Your task to perform on an android device: Go to notification settings Image 0: 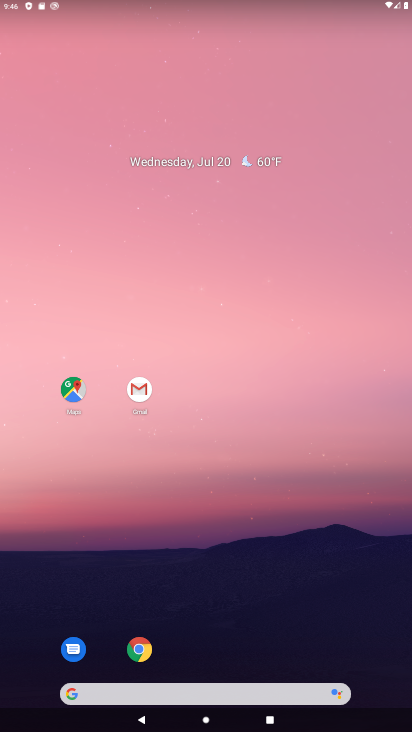
Step 0: drag from (324, 492) to (294, 127)
Your task to perform on an android device: Go to notification settings Image 1: 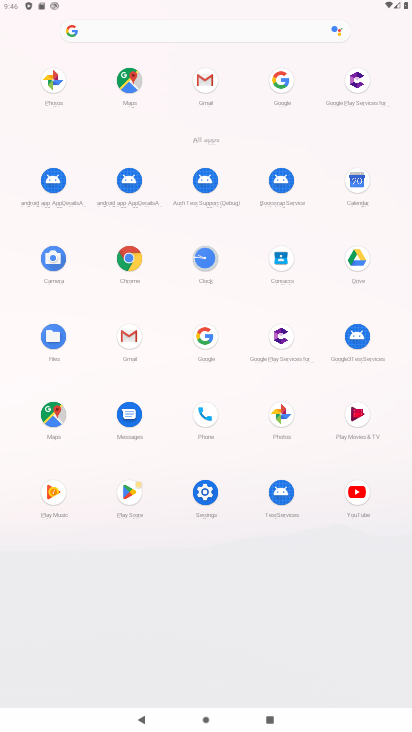
Step 1: click (201, 494)
Your task to perform on an android device: Go to notification settings Image 2: 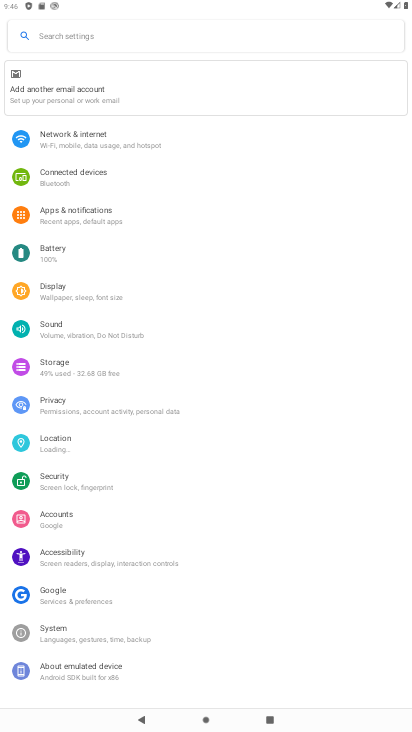
Step 2: click (77, 212)
Your task to perform on an android device: Go to notification settings Image 3: 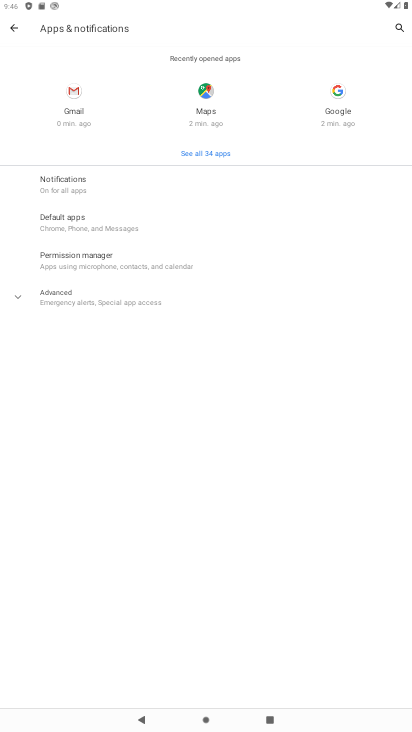
Step 3: click (64, 183)
Your task to perform on an android device: Go to notification settings Image 4: 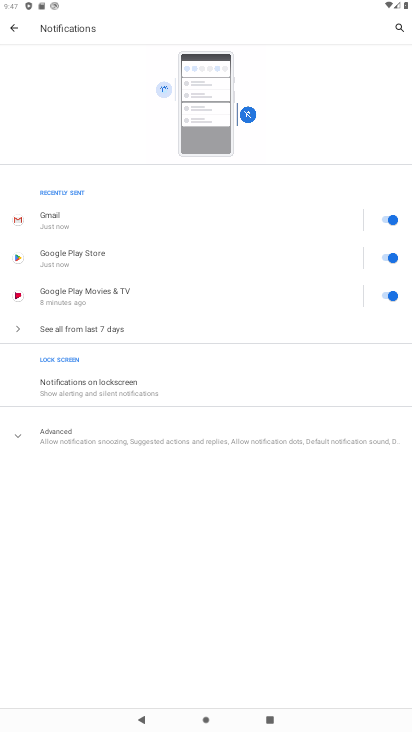
Step 4: click (18, 433)
Your task to perform on an android device: Go to notification settings Image 5: 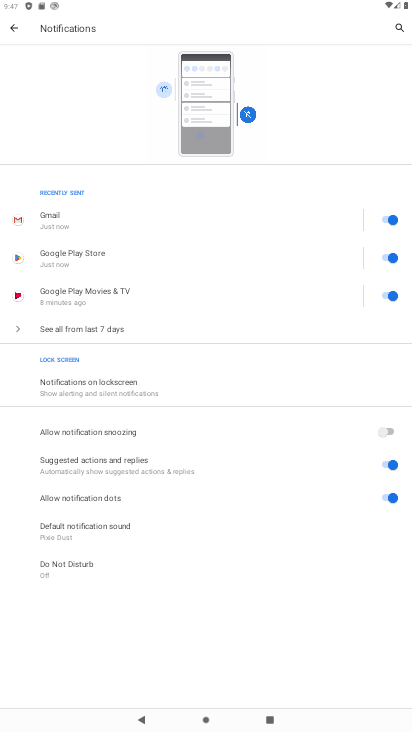
Step 5: task complete